Your task to perform on an android device: Go to Yahoo.com Image 0: 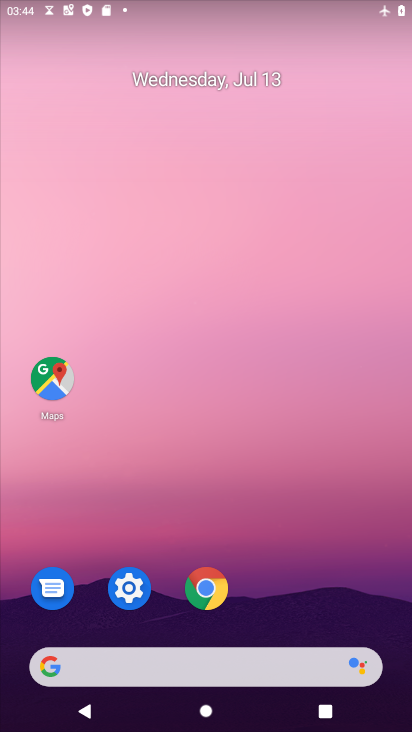
Step 0: click (231, 142)
Your task to perform on an android device: Go to Yahoo.com Image 1: 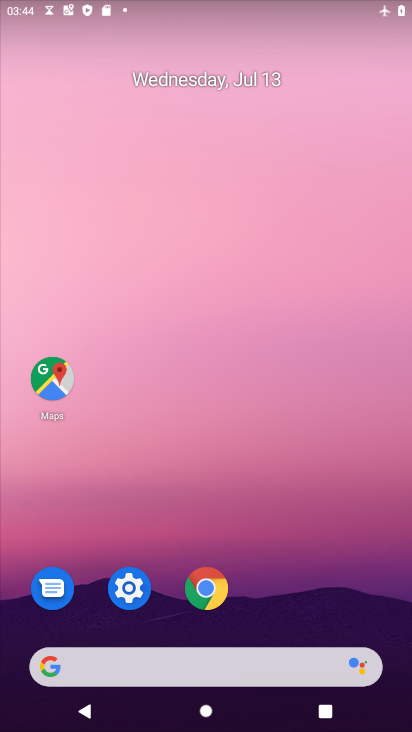
Step 1: drag from (270, 477) to (155, 26)
Your task to perform on an android device: Go to Yahoo.com Image 2: 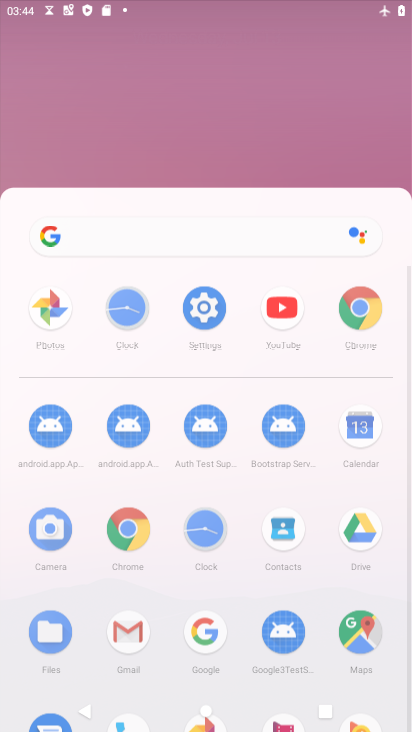
Step 2: drag from (249, 439) to (195, 148)
Your task to perform on an android device: Go to Yahoo.com Image 3: 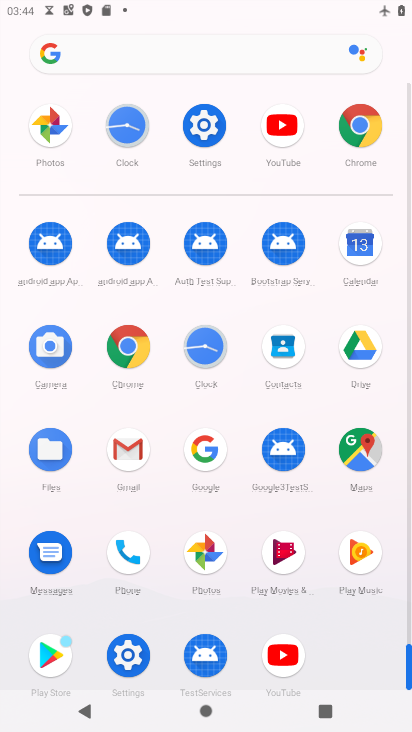
Step 3: drag from (287, 406) to (229, 36)
Your task to perform on an android device: Go to Yahoo.com Image 4: 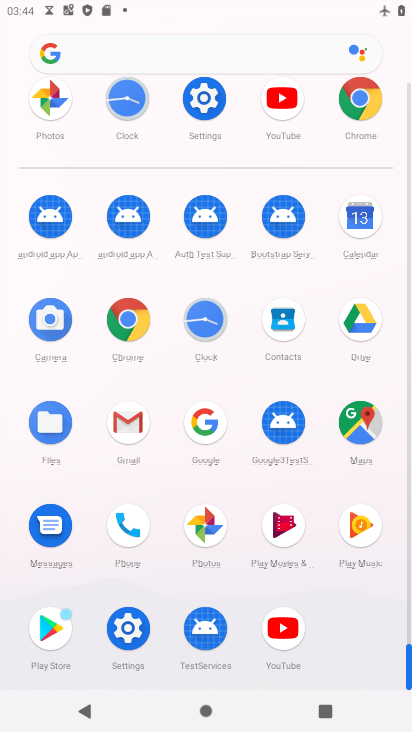
Step 4: click (357, 106)
Your task to perform on an android device: Go to Yahoo.com Image 5: 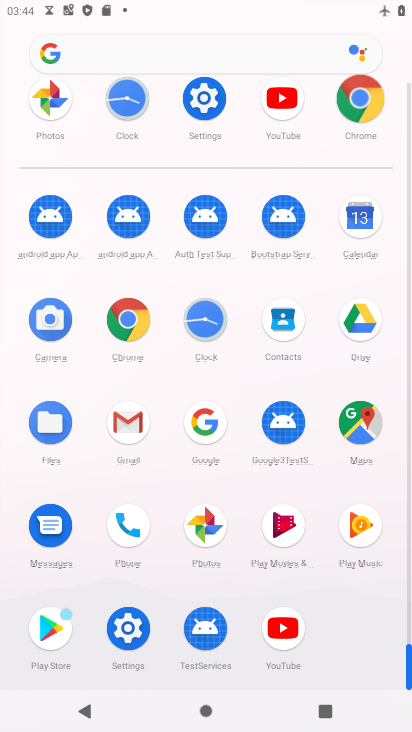
Step 5: click (356, 102)
Your task to perform on an android device: Go to Yahoo.com Image 6: 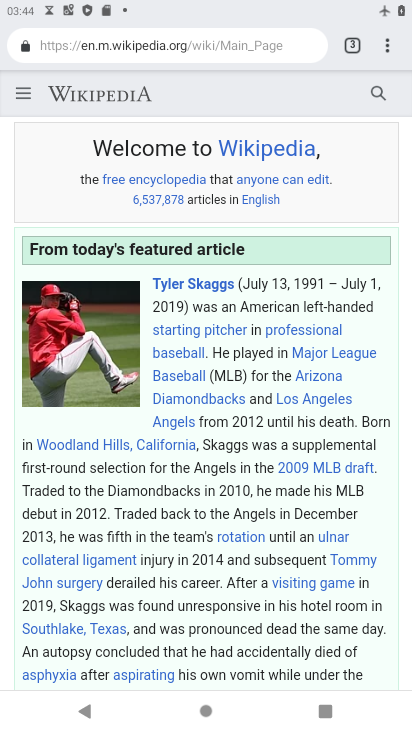
Step 6: drag from (390, 40) to (270, 200)
Your task to perform on an android device: Go to Yahoo.com Image 7: 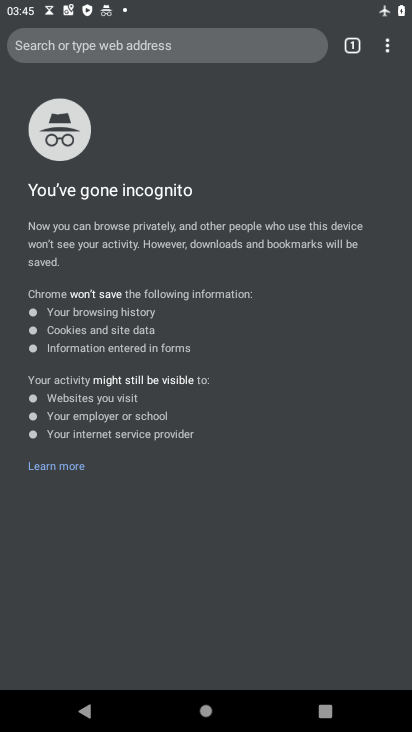
Step 7: click (385, 35)
Your task to perform on an android device: Go to Yahoo.com Image 8: 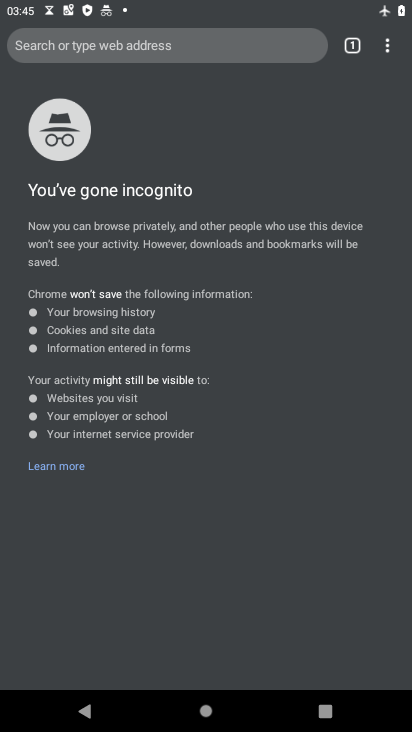
Step 8: drag from (385, 35) to (209, 143)
Your task to perform on an android device: Go to Yahoo.com Image 9: 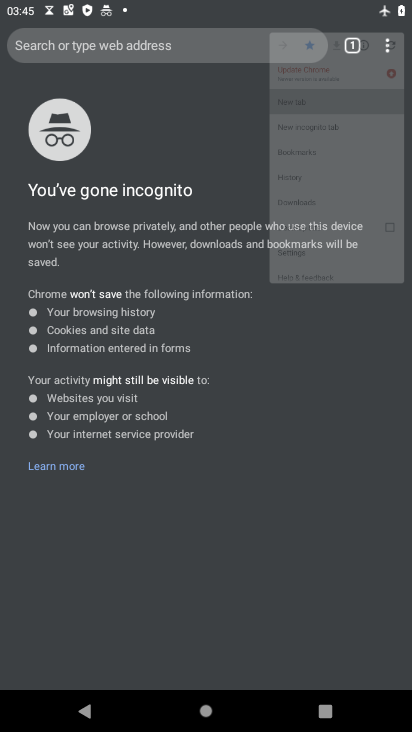
Step 9: click (211, 147)
Your task to perform on an android device: Go to Yahoo.com Image 10: 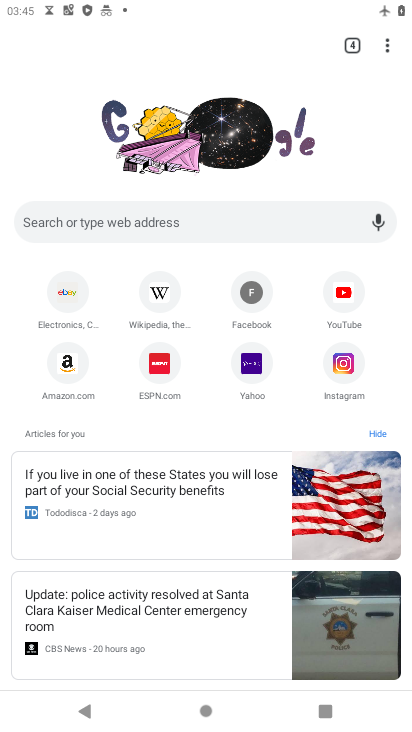
Step 10: click (247, 356)
Your task to perform on an android device: Go to Yahoo.com Image 11: 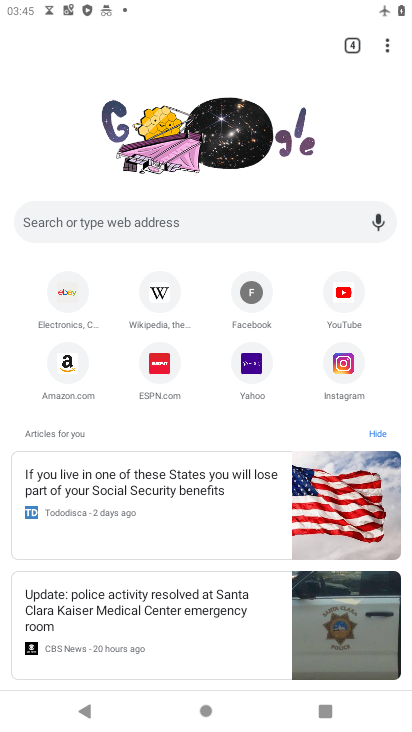
Step 11: click (251, 374)
Your task to perform on an android device: Go to Yahoo.com Image 12: 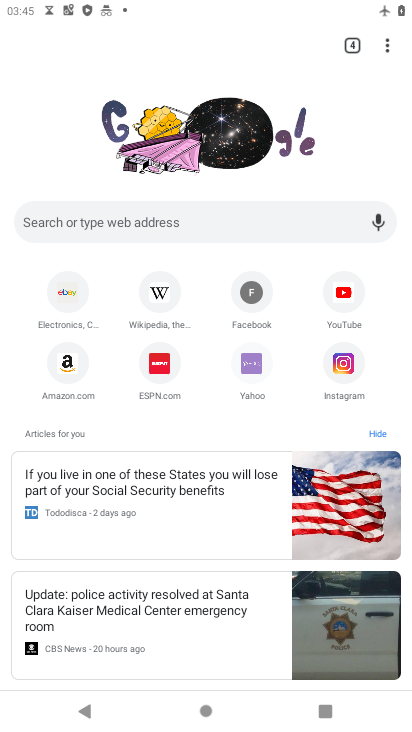
Step 12: click (254, 359)
Your task to perform on an android device: Go to Yahoo.com Image 13: 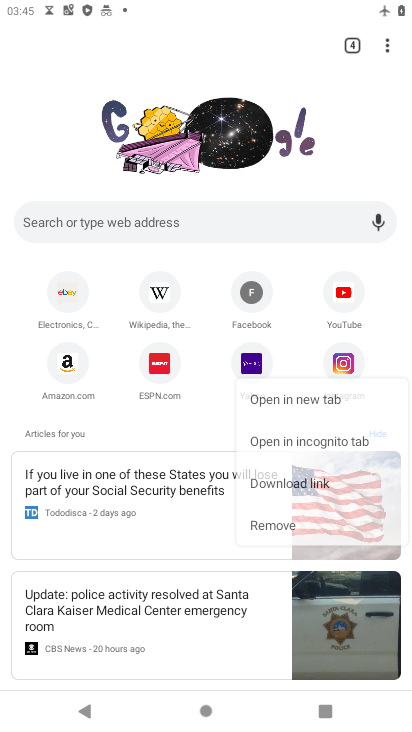
Step 13: click (254, 359)
Your task to perform on an android device: Go to Yahoo.com Image 14: 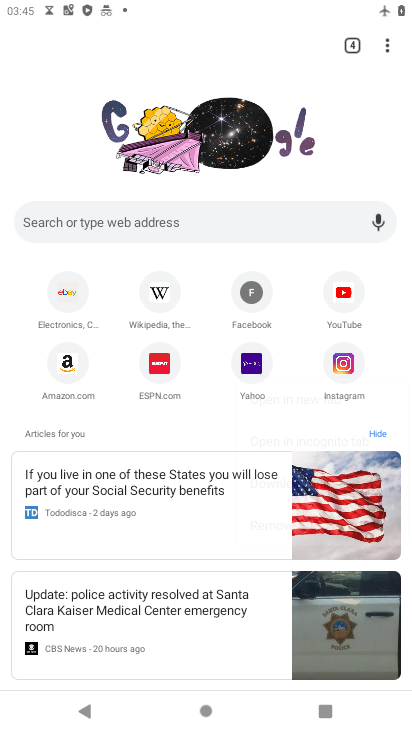
Step 14: click (254, 359)
Your task to perform on an android device: Go to Yahoo.com Image 15: 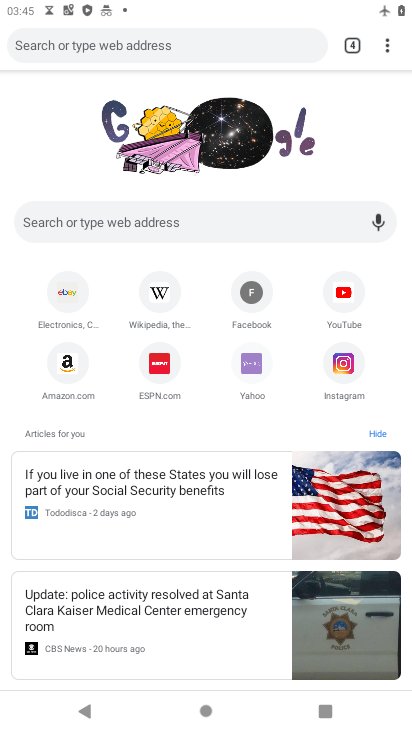
Step 15: click (254, 360)
Your task to perform on an android device: Go to Yahoo.com Image 16: 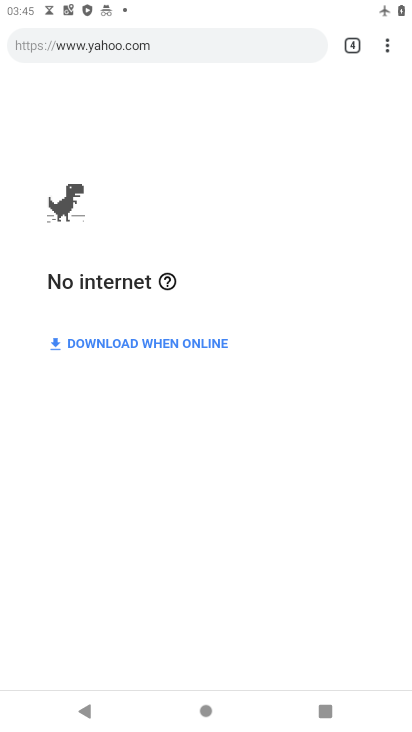
Step 16: task complete